Your task to perform on an android device: turn pop-ups off in chrome Image 0: 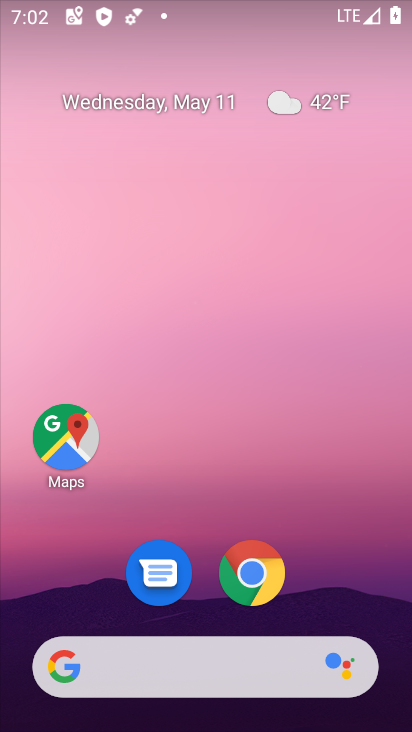
Step 0: drag from (287, 603) to (301, 213)
Your task to perform on an android device: turn pop-ups off in chrome Image 1: 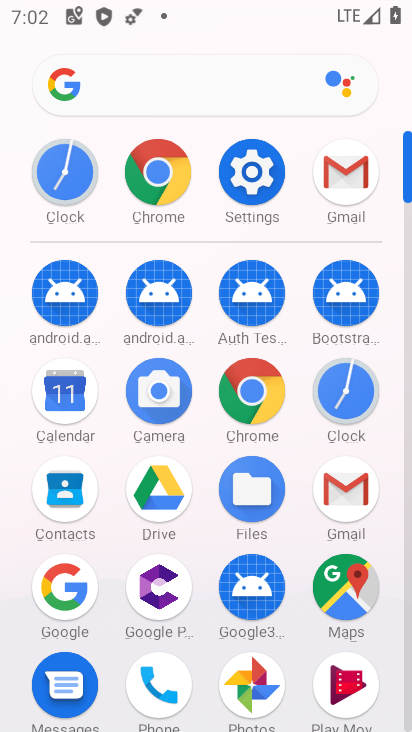
Step 1: click (255, 185)
Your task to perform on an android device: turn pop-ups off in chrome Image 2: 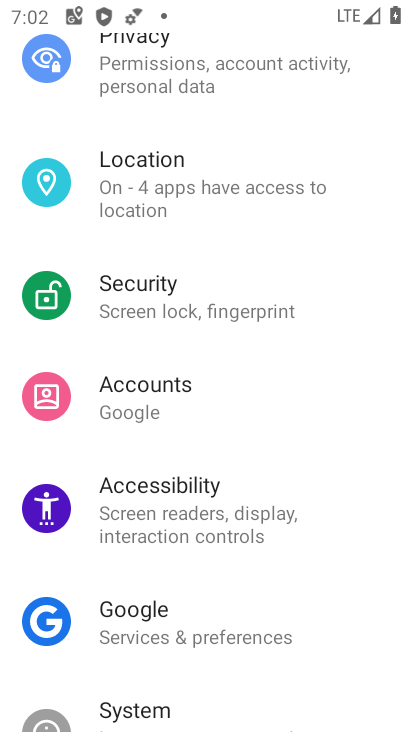
Step 2: drag from (255, 185) to (249, 516)
Your task to perform on an android device: turn pop-ups off in chrome Image 3: 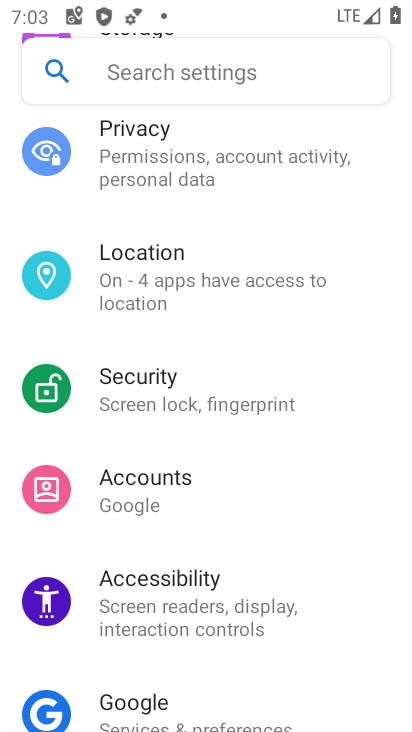
Step 3: drag from (267, 279) to (230, 513)
Your task to perform on an android device: turn pop-ups off in chrome Image 4: 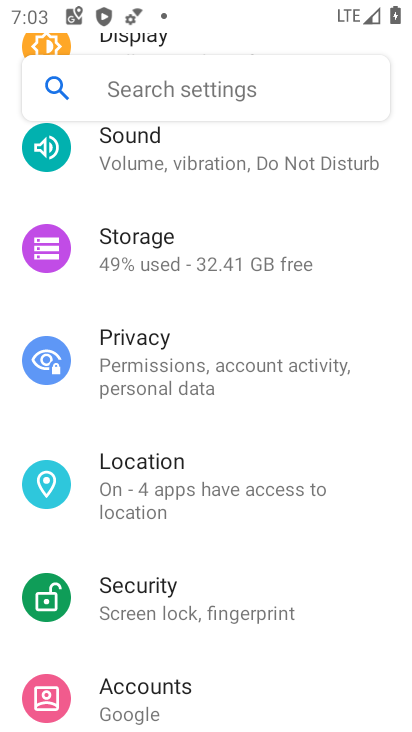
Step 4: drag from (222, 247) to (239, 646)
Your task to perform on an android device: turn pop-ups off in chrome Image 5: 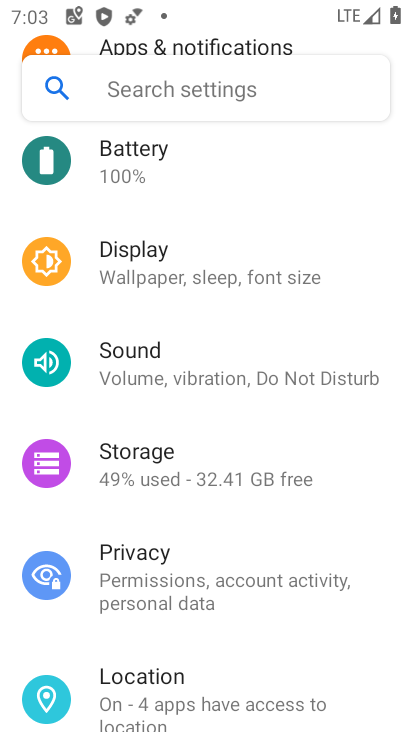
Step 5: drag from (256, 309) to (257, 684)
Your task to perform on an android device: turn pop-ups off in chrome Image 6: 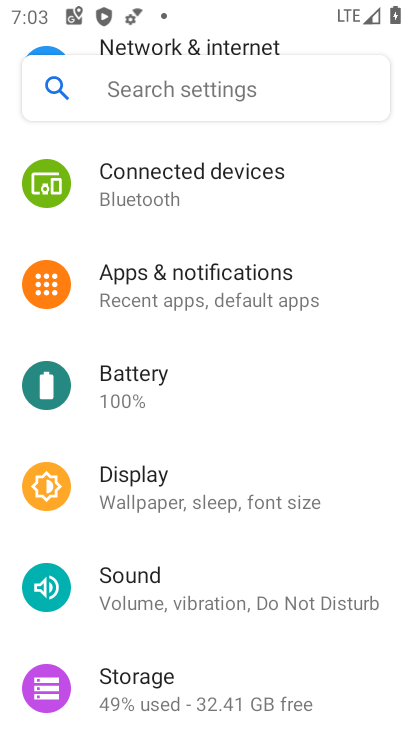
Step 6: drag from (198, 196) to (192, 480)
Your task to perform on an android device: turn pop-ups off in chrome Image 7: 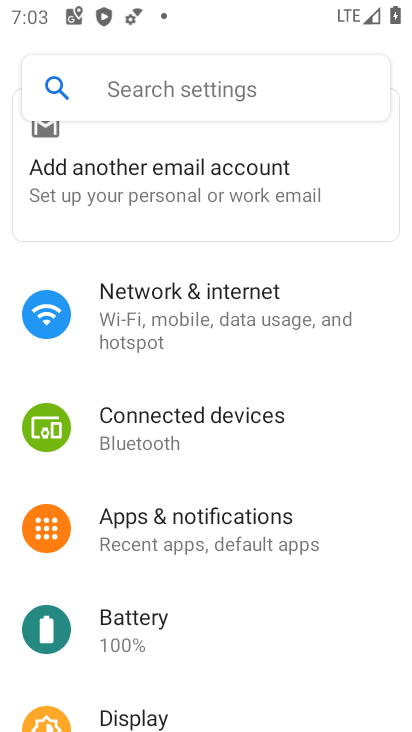
Step 7: click (161, 308)
Your task to perform on an android device: turn pop-ups off in chrome Image 8: 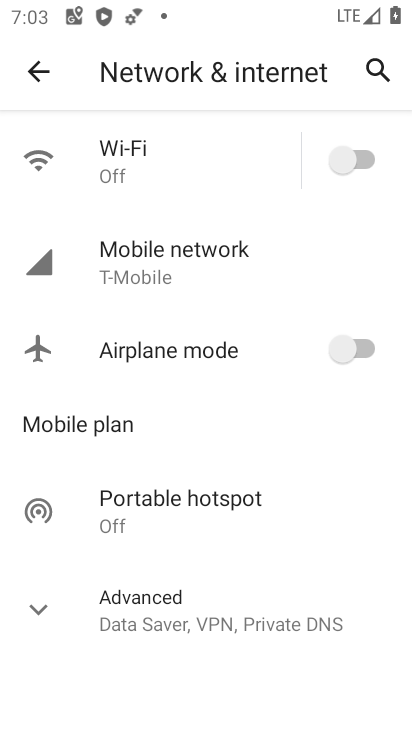
Step 8: task complete